Your task to perform on an android device: toggle improve location accuracy Image 0: 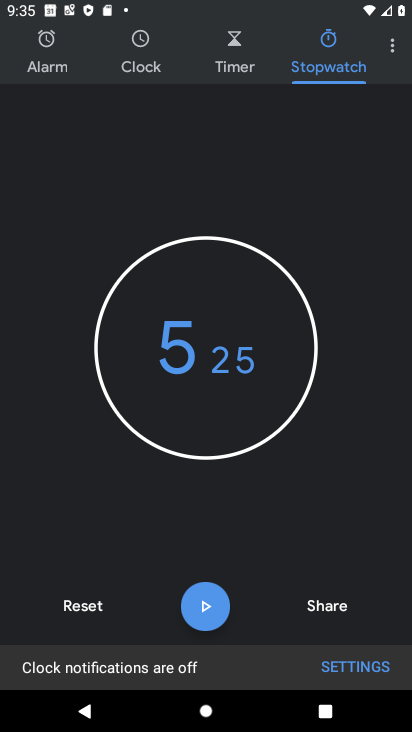
Step 0: press home button
Your task to perform on an android device: toggle improve location accuracy Image 1: 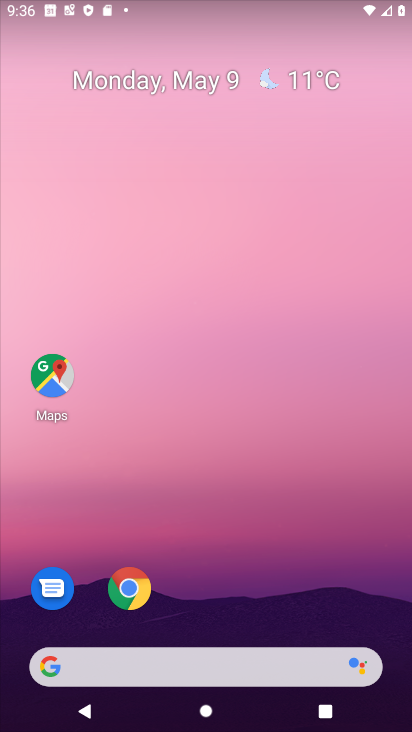
Step 1: drag from (151, 672) to (271, 81)
Your task to perform on an android device: toggle improve location accuracy Image 2: 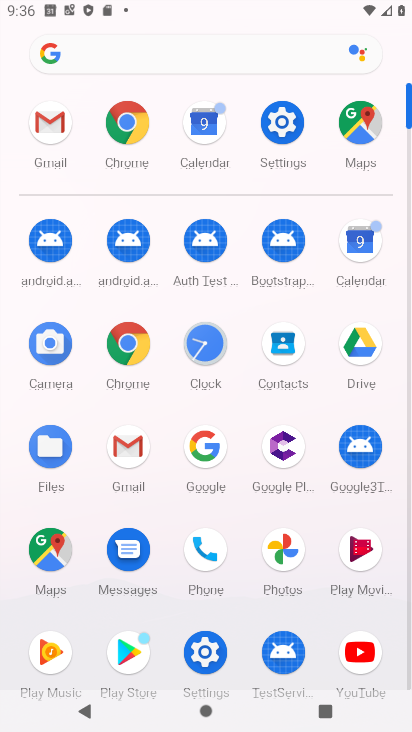
Step 2: click (281, 136)
Your task to perform on an android device: toggle improve location accuracy Image 3: 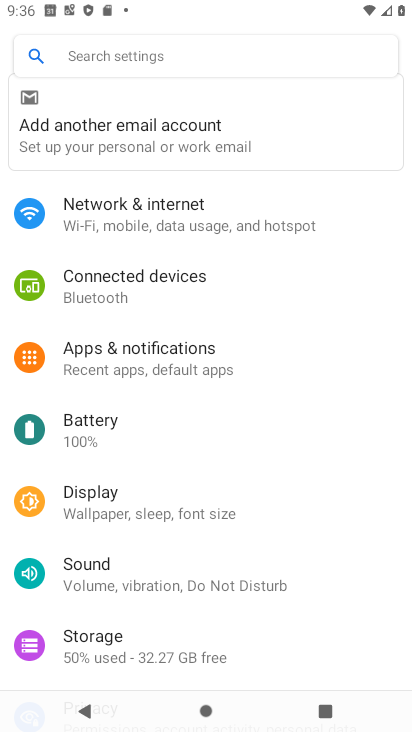
Step 3: drag from (137, 566) to (212, 237)
Your task to perform on an android device: toggle improve location accuracy Image 4: 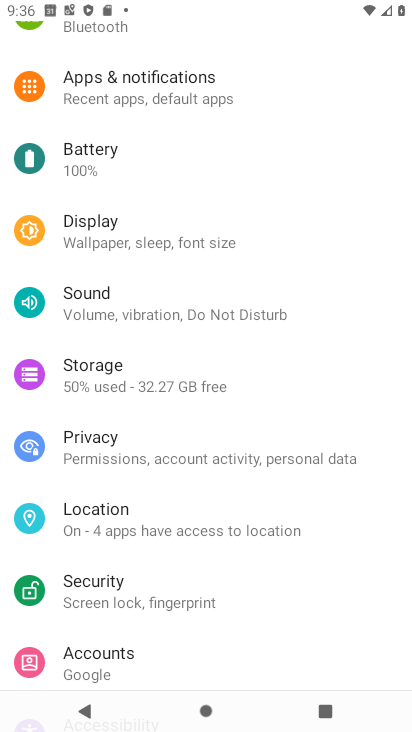
Step 4: click (112, 520)
Your task to perform on an android device: toggle improve location accuracy Image 5: 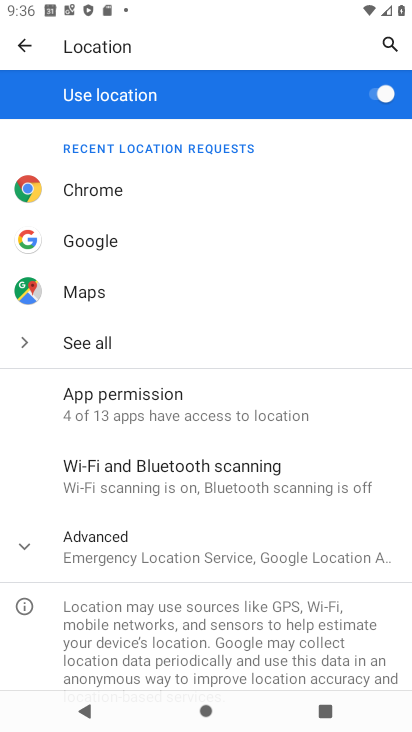
Step 5: click (84, 552)
Your task to perform on an android device: toggle improve location accuracy Image 6: 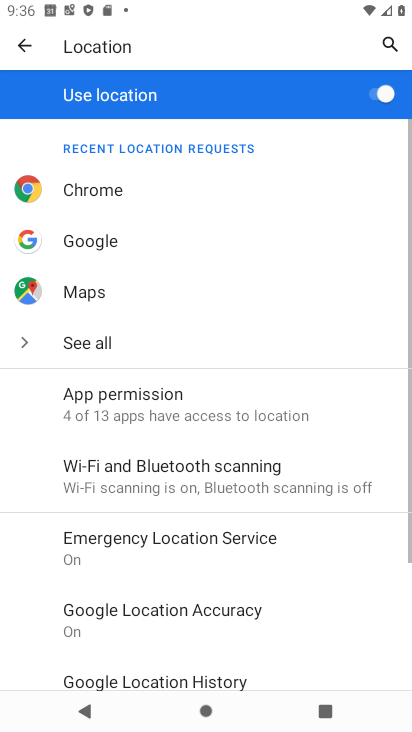
Step 6: drag from (147, 668) to (255, 291)
Your task to perform on an android device: toggle improve location accuracy Image 7: 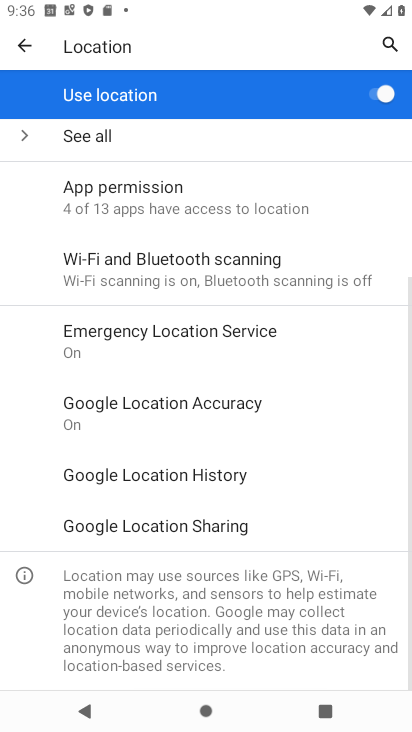
Step 7: click (172, 403)
Your task to perform on an android device: toggle improve location accuracy Image 8: 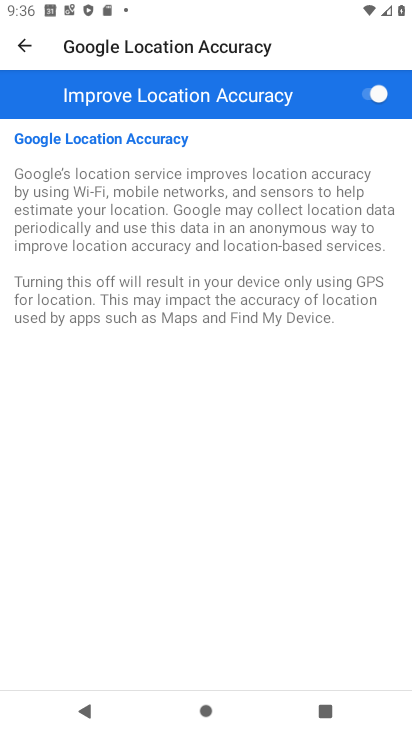
Step 8: click (368, 93)
Your task to perform on an android device: toggle improve location accuracy Image 9: 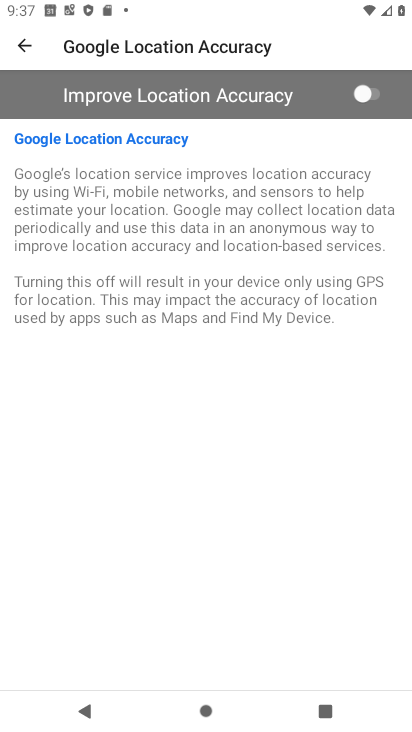
Step 9: task complete